Your task to perform on an android device: choose inbox layout in the gmail app Image 0: 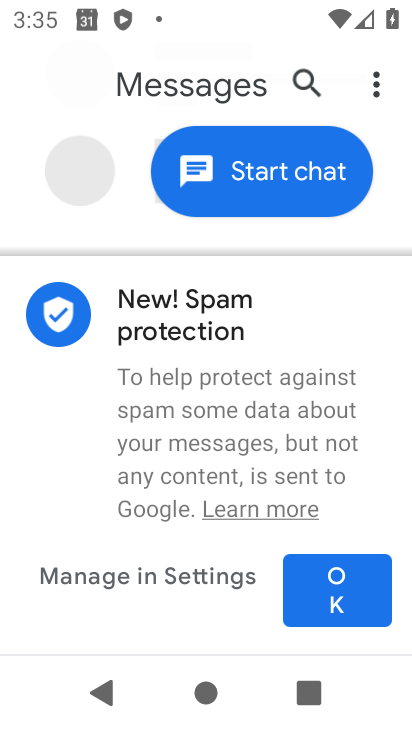
Step 0: press home button
Your task to perform on an android device: choose inbox layout in the gmail app Image 1: 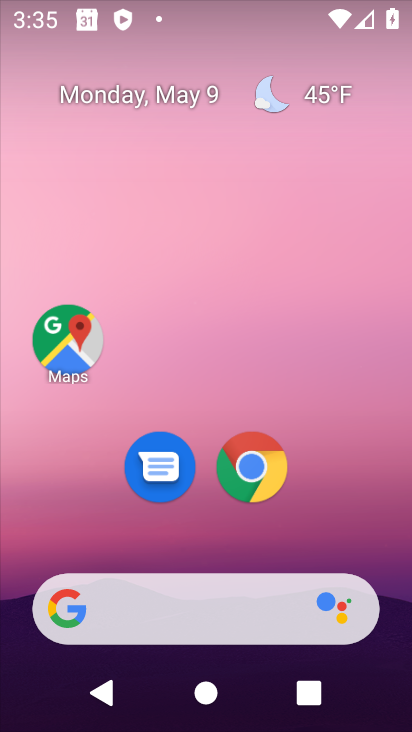
Step 1: drag from (296, 454) to (308, 173)
Your task to perform on an android device: choose inbox layout in the gmail app Image 2: 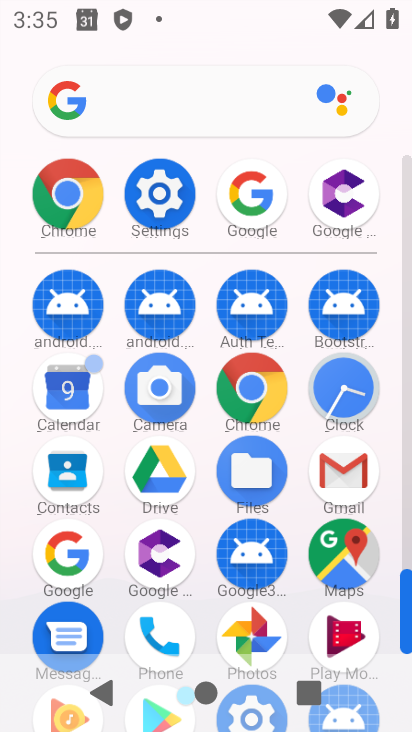
Step 2: click (344, 467)
Your task to perform on an android device: choose inbox layout in the gmail app Image 3: 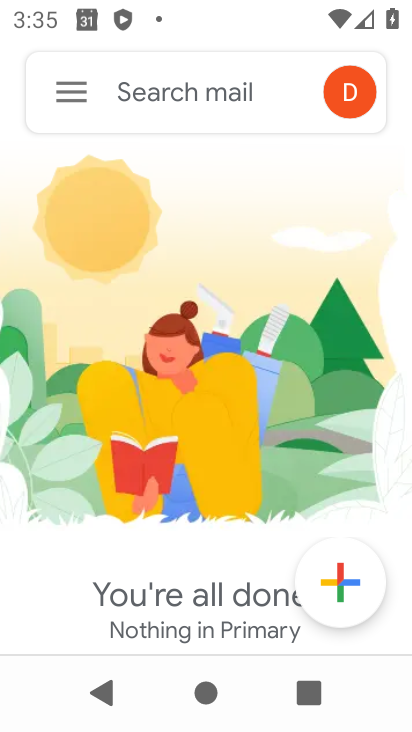
Step 3: click (60, 92)
Your task to perform on an android device: choose inbox layout in the gmail app Image 4: 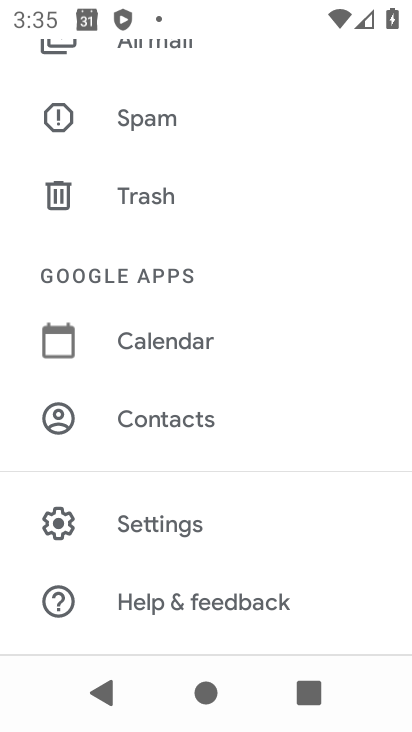
Step 4: drag from (200, 147) to (203, 576)
Your task to perform on an android device: choose inbox layout in the gmail app Image 5: 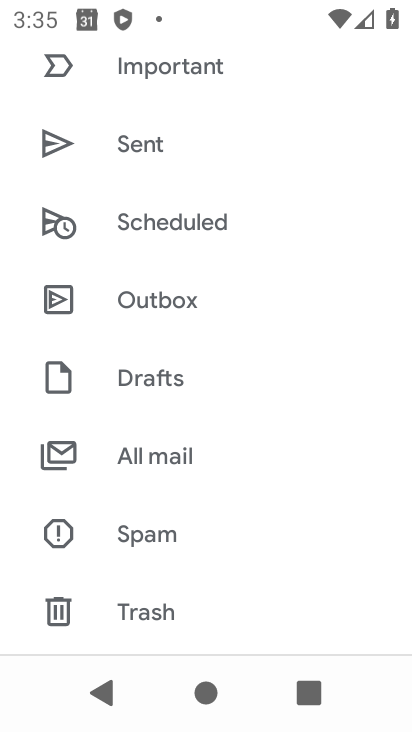
Step 5: drag from (268, 197) to (223, 546)
Your task to perform on an android device: choose inbox layout in the gmail app Image 6: 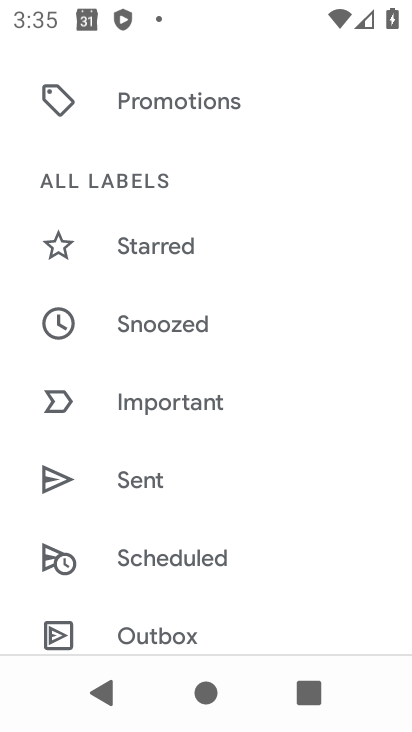
Step 6: drag from (269, 207) to (206, 594)
Your task to perform on an android device: choose inbox layout in the gmail app Image 7: 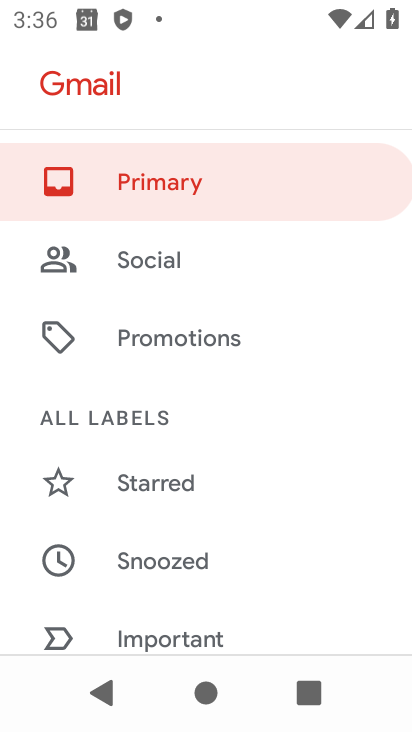
Step 7: drag from (265, 585) to (279, 193)
Your task to perform on an android device: choose inbox layout in the gmail app Image 8: 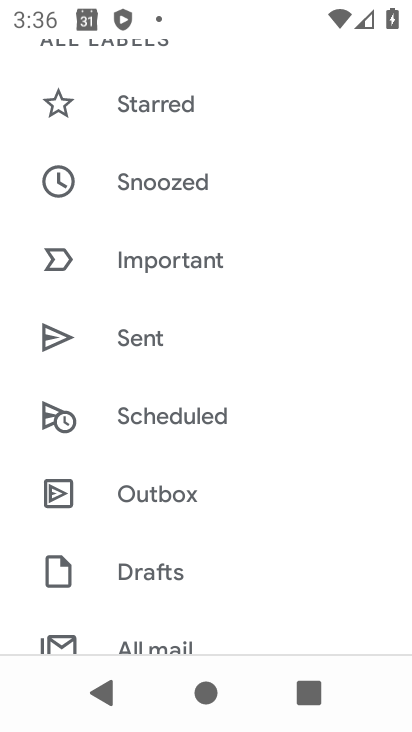
Step 8: drag from (231, 601) to (240, 203)
Your task to perform on an android device: choose inbox layout in the gmail app Image 9: 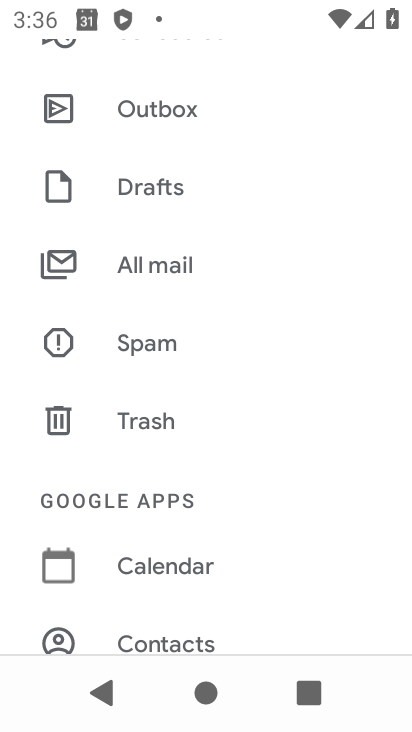
Step 9: drag from (201, 605) to (260, 158)
Your task to perform on an android device: choose inbox layout in the gmail app Image 10: 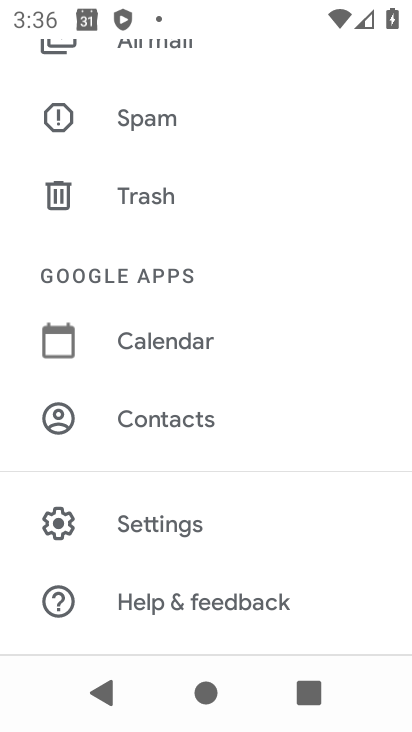
Step 10: click (198, 531)
Your task to perform on an android device: choose inbox layout in the gmail app Image 11: 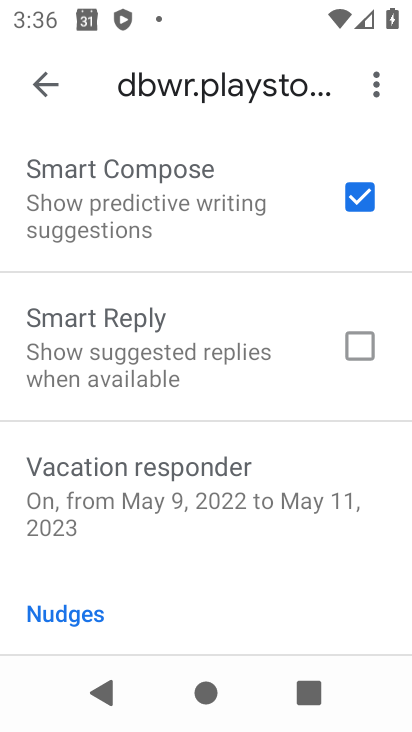
Step 11: drag from (203, 275) to (203, 584)
Your task to perform on an android device: choose inbox layout in the gmail app Image 12: 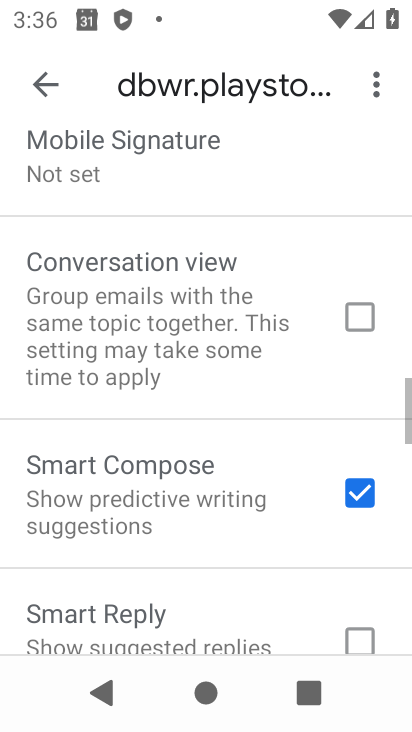
Step 12: drag from (222, 257) to (223, 577)
Your task to perform on an android device: choose inbox layout in the gmail app Image 13: 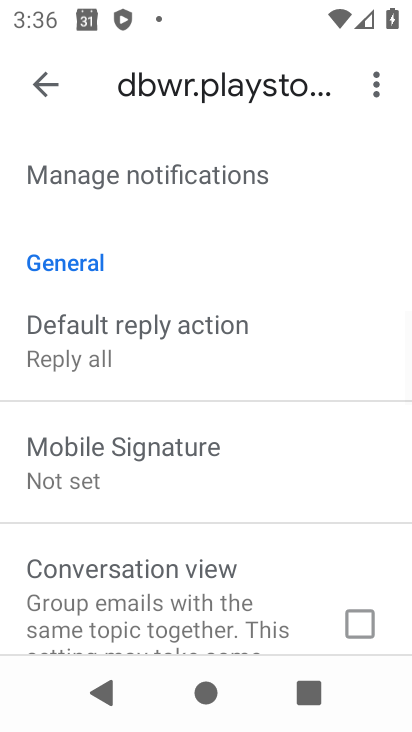
Step 13: drag from (222, 290) to (193, 606)
Your task to perform on an android device: choose inbox layout in the gmail app Image 14: 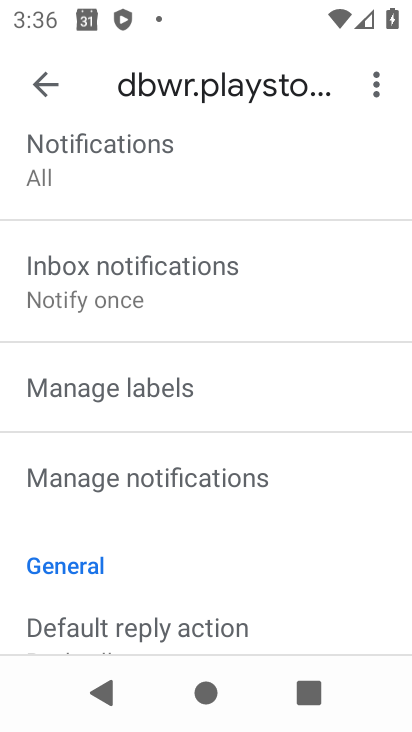
Step 14: drag from (209, 198) to (205, 581)
Your task to perform on an android device: choose inbox layout in the gmail app Image 15: 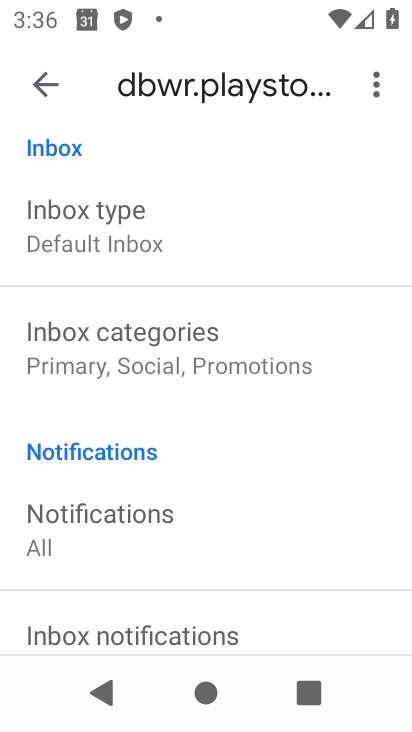
Step 15: click (133, 238)
Your task to perform on an android device: choose inbox layout in the gmail app Image 16: 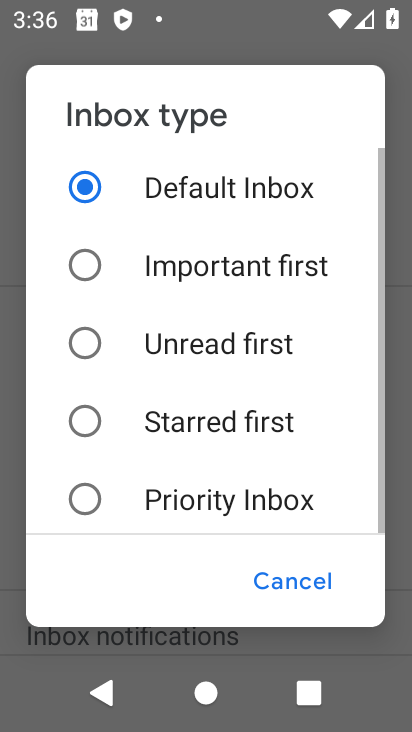
Step 16: click (165, 197)
Your task to perform on an android device: choose inbox layout in the gmail app Image 17: 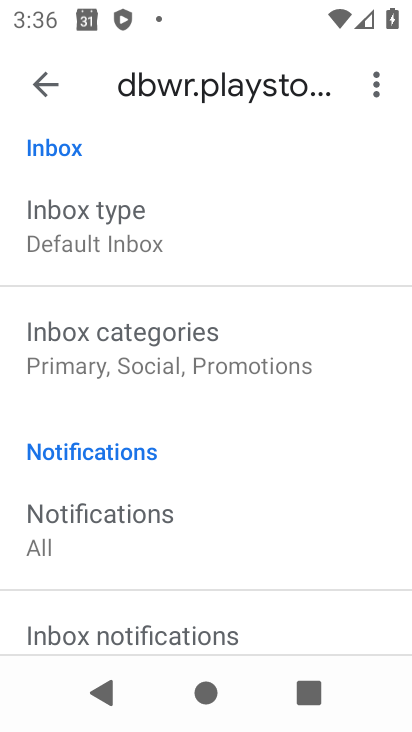
Step 17: task complete